Your task to perform on an android device: delete the emails in spam in the gmail app Image 0: 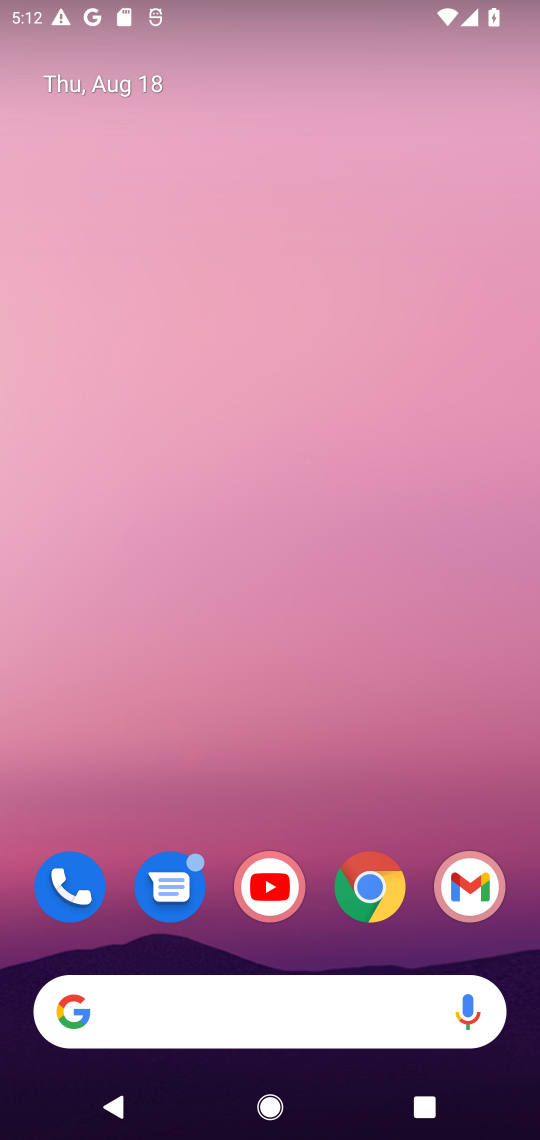
Step 0: drag from (344, 748) to (387, 190)
Your task to perform on an android device: delete the emails in spam in the gmail app Image 1: 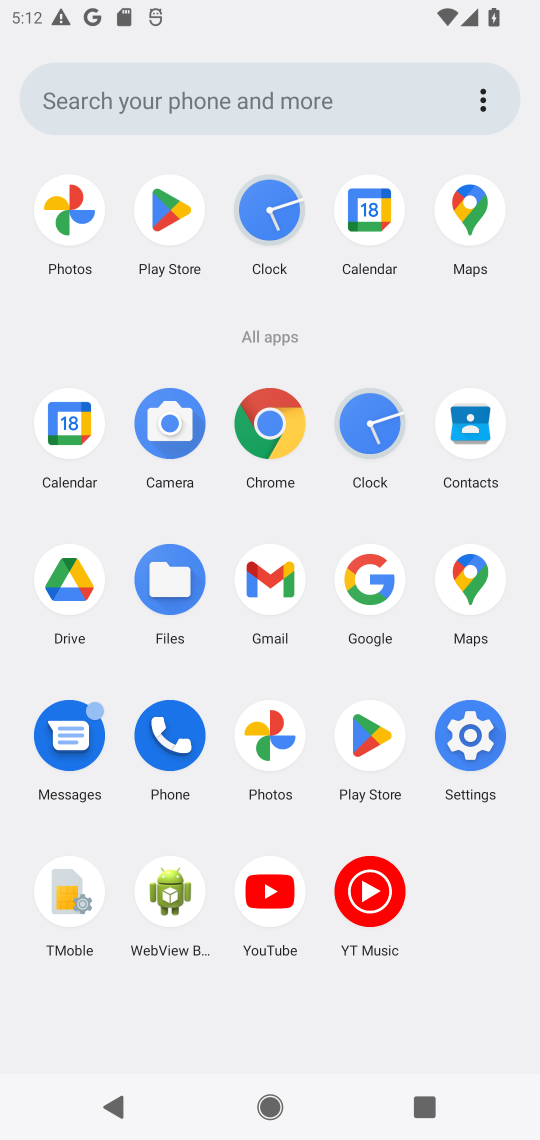
Step 1: task complete